Your task to perform on an android device: allow notifications from all sites in the chrome app Image 0: 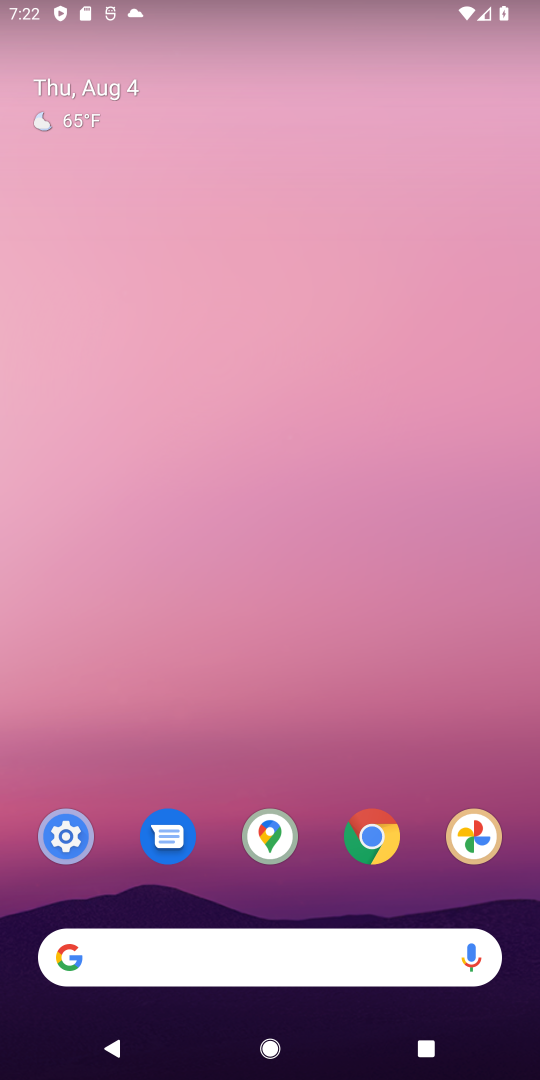
Step 0: click (372, 824)
Your task to perform on an android device: allow notifications from all sites in the chrome app Image 1: 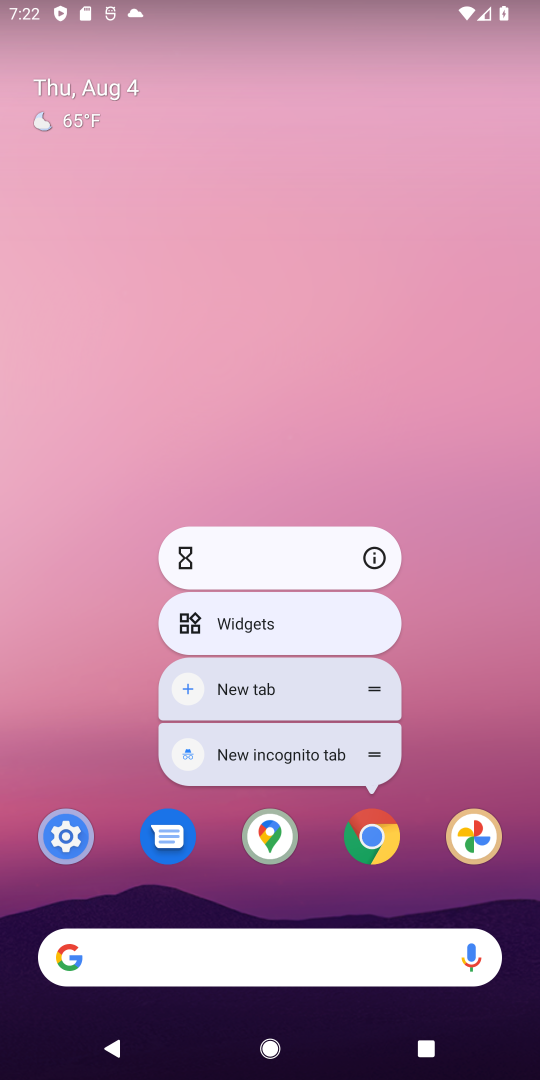
Step 1: click (373, 845)
Your task to perform on an android device: allow notifications from all sites in the chrome app Image 2: 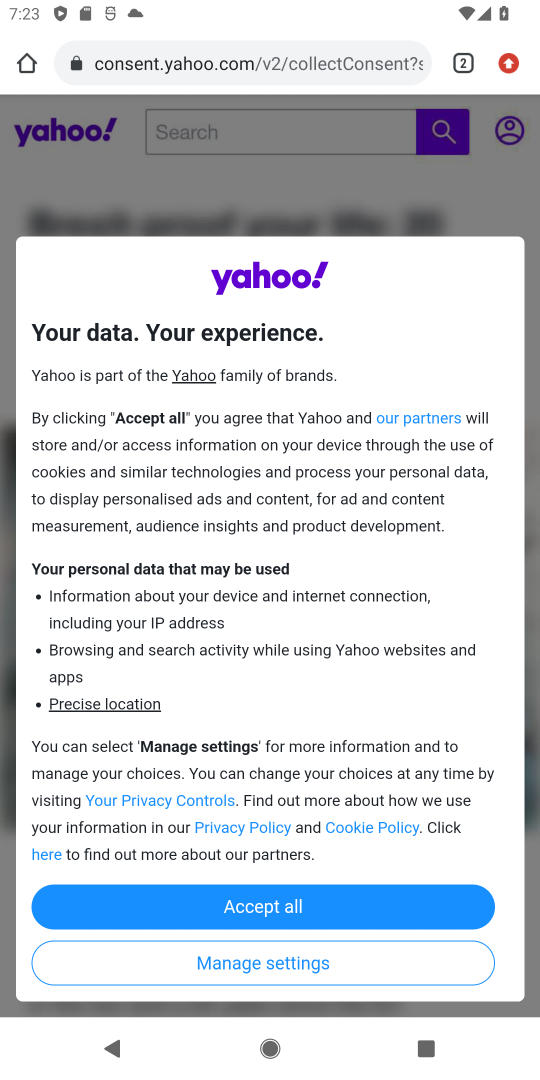
Step 2: drag from (510, 54) to (349, 826)
Your task to perform on an android device: allow notifications from all sites in the chrome app Image 3: 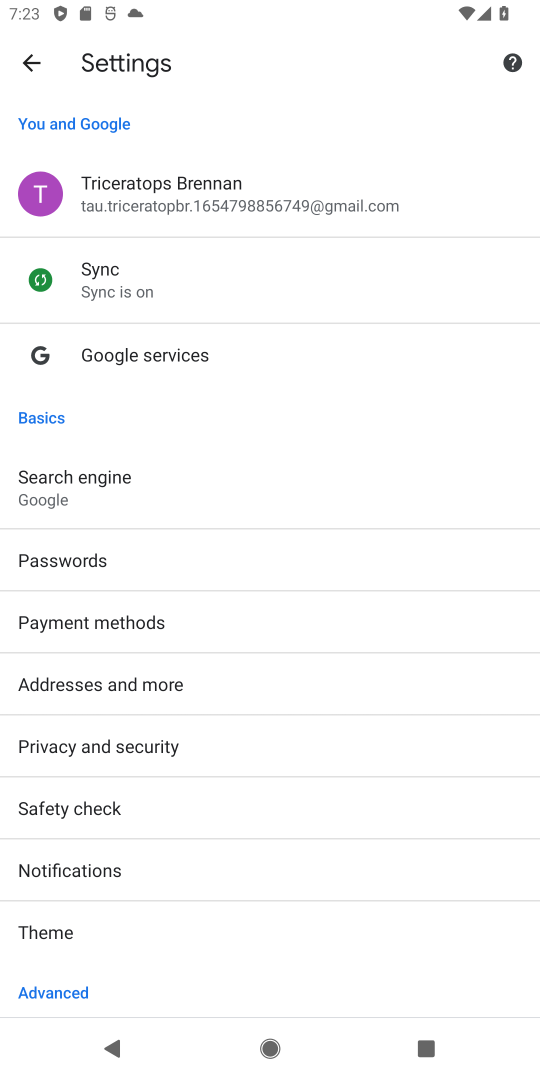
Step 3: click (93, 868)
Your task to perform on an android device: allow notifications from all sites in the chrome app Image 4: 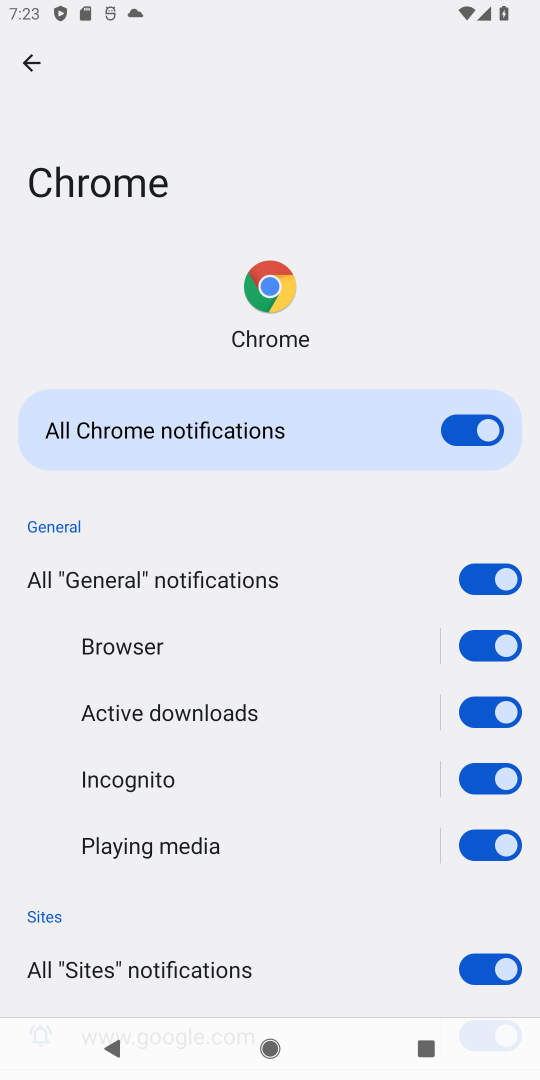
Step 4: task complete